Your task to perform on an android device: Go to settings Image 0: 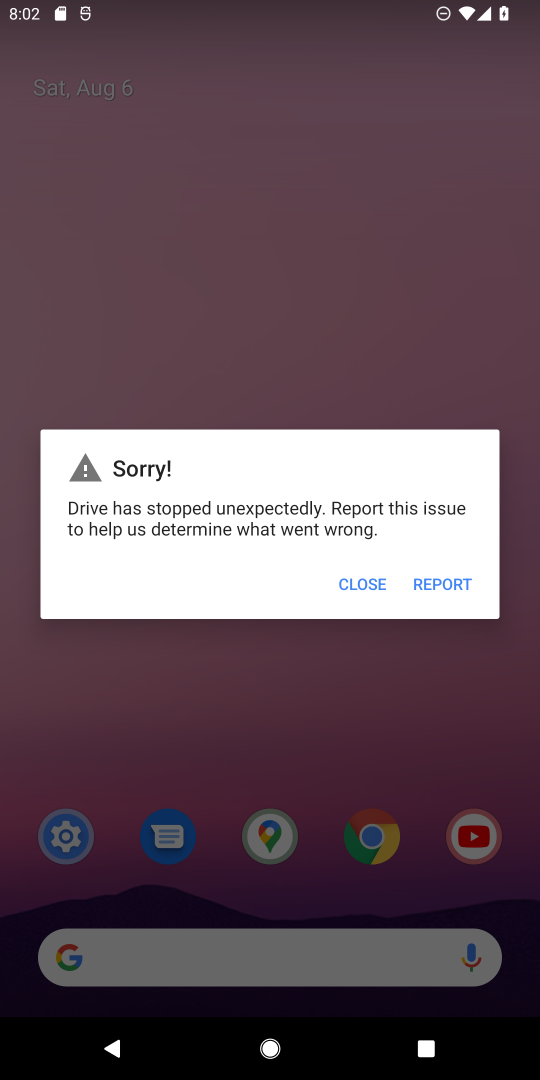
Step 0: press home button
Your task to perform on an android device: Go to settings Image 1: 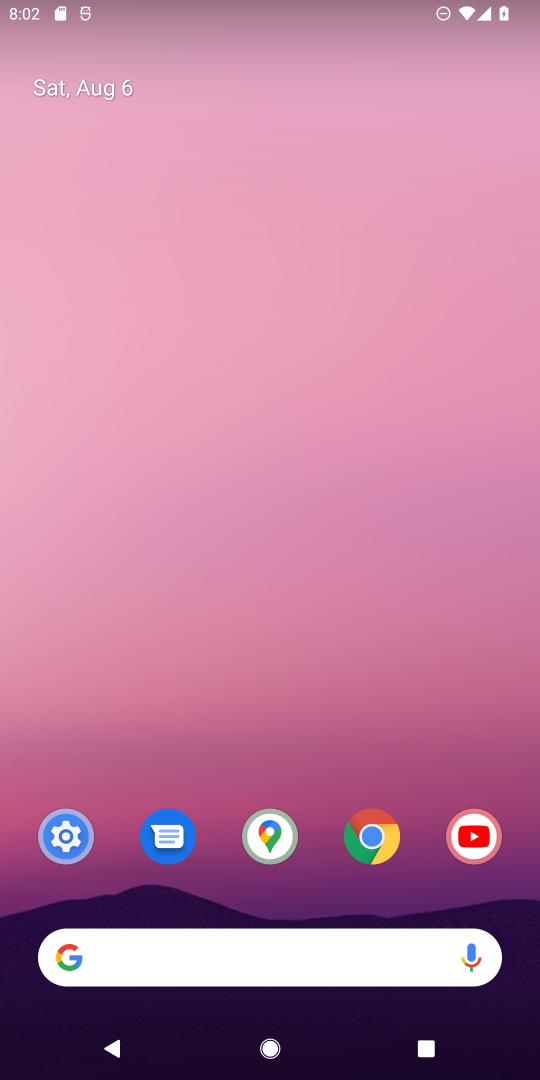
Step 1: drag from (225, 920) to (232, 665)
Your task to perform on an android device: Go to settings Image 2: 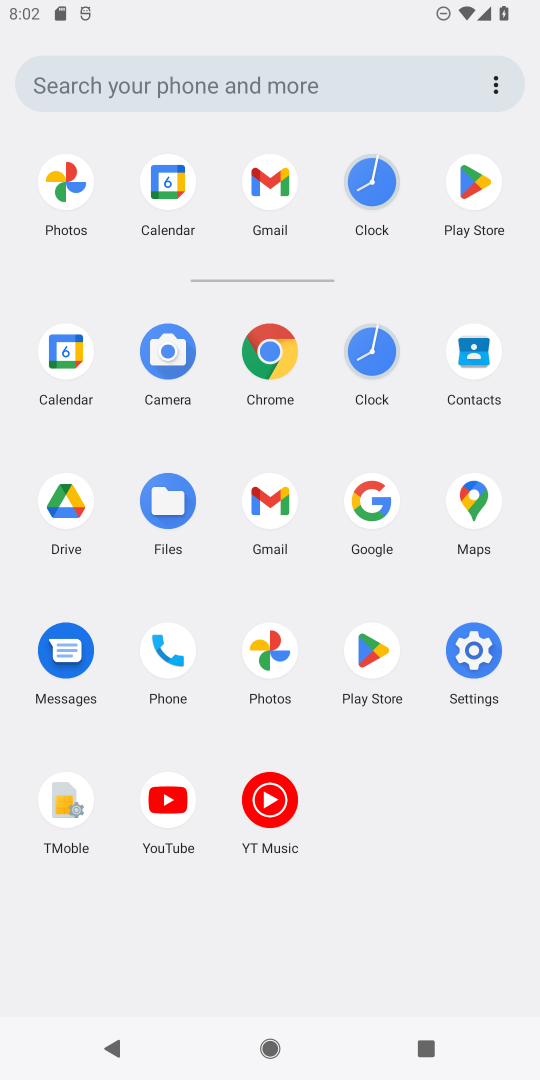
Step 2: click (456, 656)
Your task to perform on an android device: Go to settings Image 3: 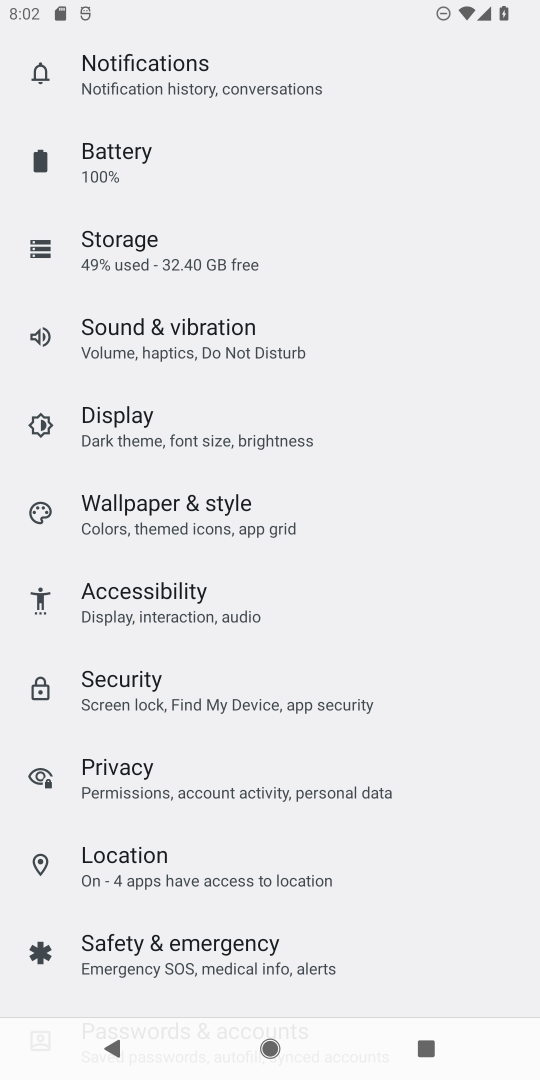
Step 3: task complete